Your task to perform on an android device: Open Amazon Image 0: 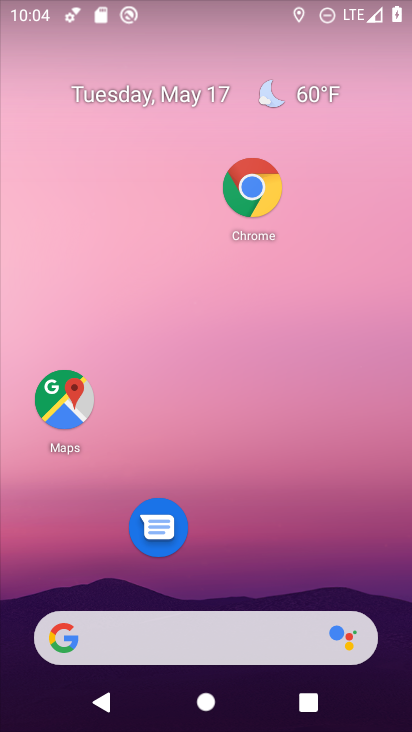
Step 0: click (257, 224)
Your task to perform on an android device: Open Amazon Image 1: 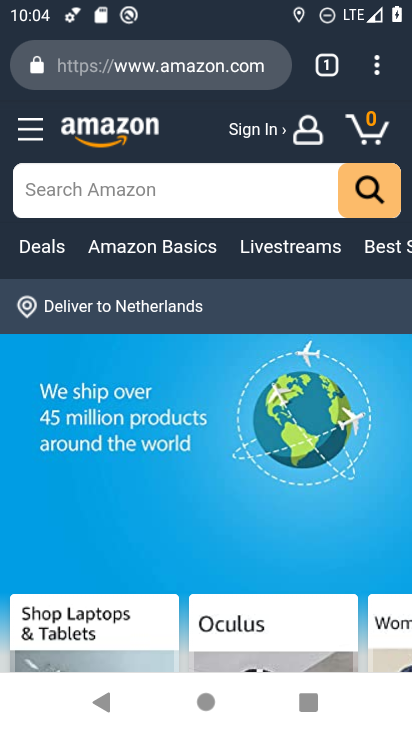
Step 1: task complete